Your task to perform on an android device: Check the news Image 0: 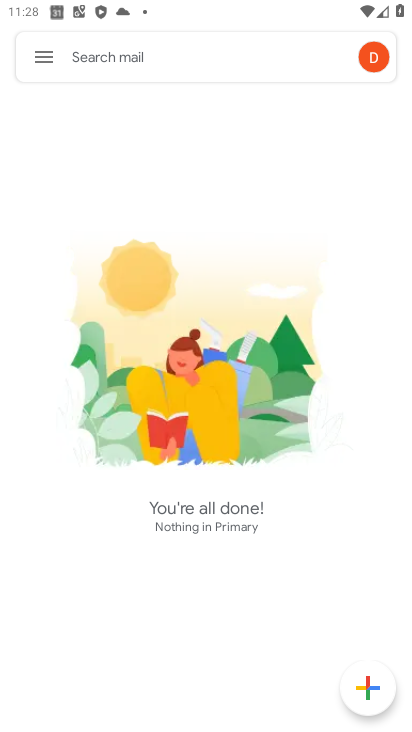
Step 0: press home button
Your task to perform on an android device: Check the news Image 1: 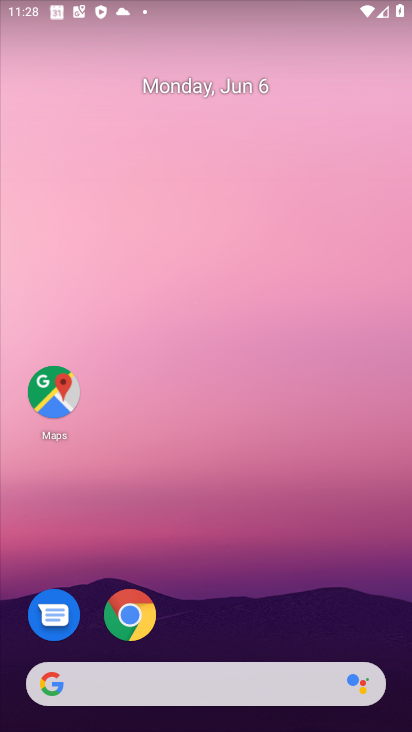
Step 1: click (229, 673)
Your task to perform on an android device: Check the news Image 2: 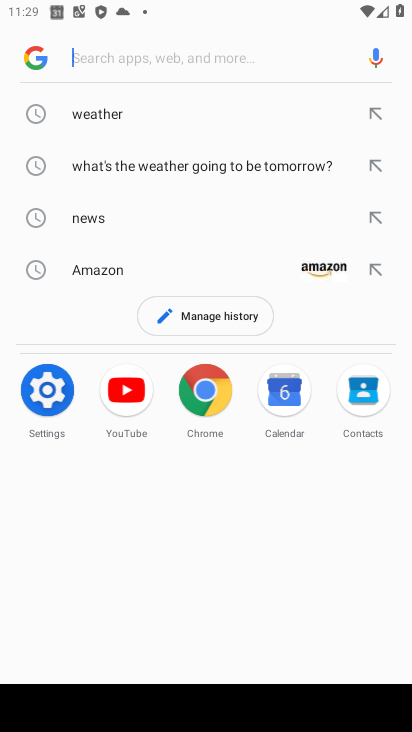
Step 2: click (116, 217)
Your task to perform on an android device: Check the news Image 3: 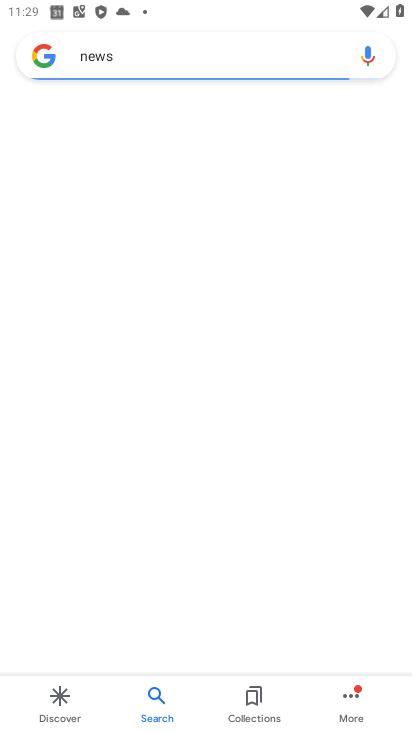
Step 3: task complete